Your task to perform on an android device: Open Chrome and go to settings Image 0: 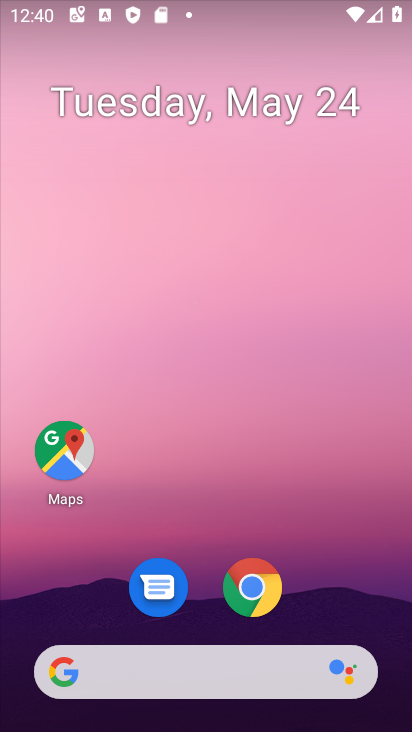
Step 0: click (255, 594)
Your task to perform on an android device: Open Chrome and go to settings Image 1: 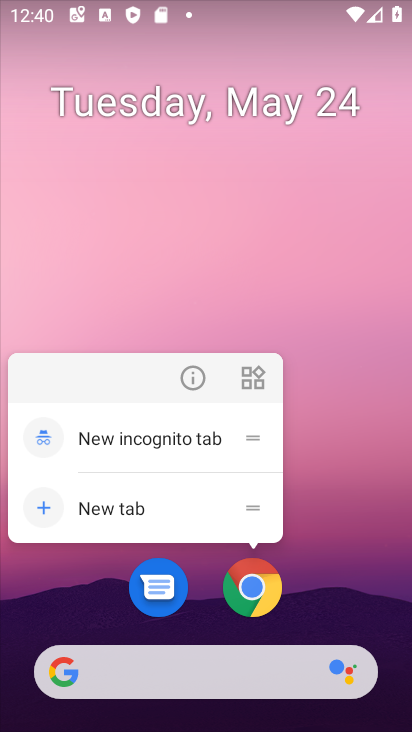
Step 1: click (244, 588)
Your task to perform on an android device: Open Chrome and go to settings Image 2: 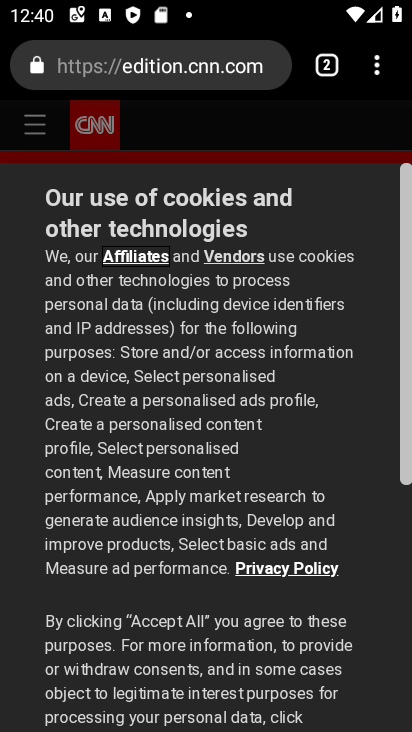
Step 2: click (373, 70)
Your task to perform on an android device: Open Chrome and go to settings Image 3: 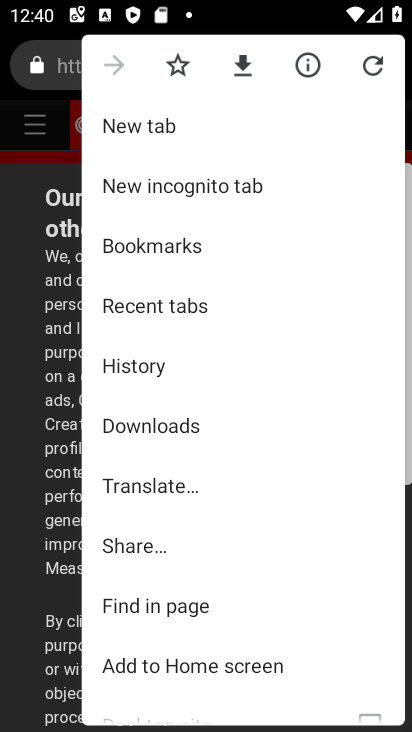
Step 3: drag from (216, 615) to (255, 265)
Your task to perform on an android device: Open Chrome and go to settings Image 4: 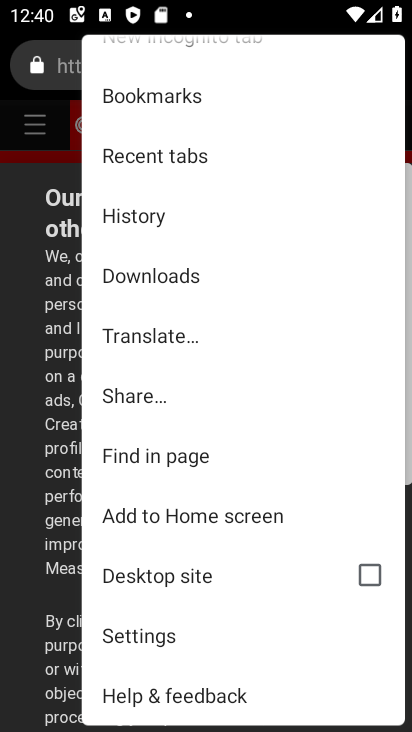
Step 4: click (140, 632)
Your task to perform on an android device: Open Chrome and go to settings Image 5: 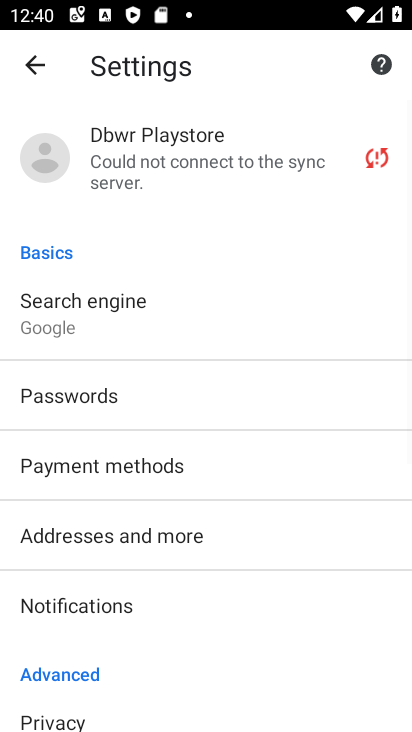
Step 5: task complete